Your task to perform on an android device: check data usage Image 0: 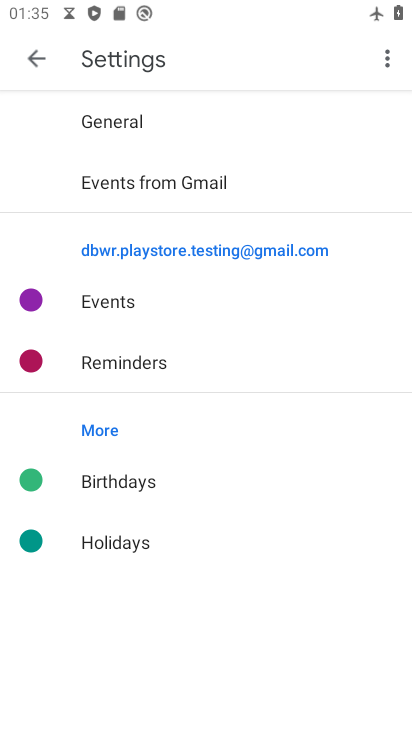
Step 0: press home button
Your task to perform on an android device: check data usage Image 1: 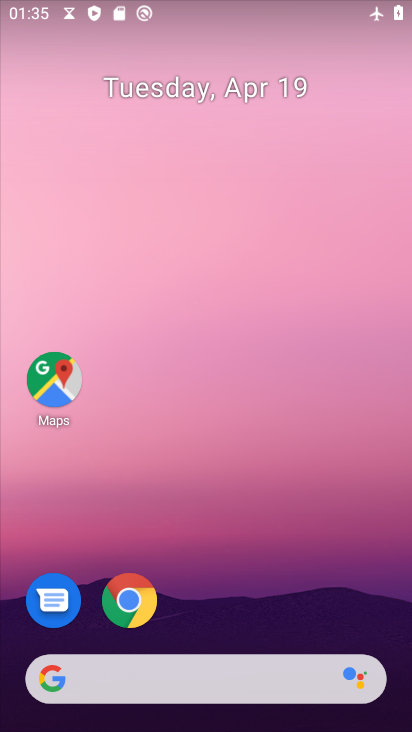
Step 1: drag from (202, 645) to (322, 74)
Your task to perform on an android device: check data usage Image 2: 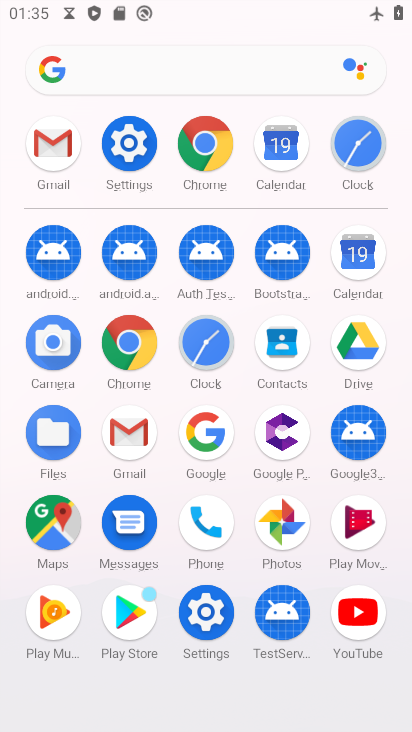
Step 2: click (122, 163)
Your task to perform on an android device: check data usage Image 3: 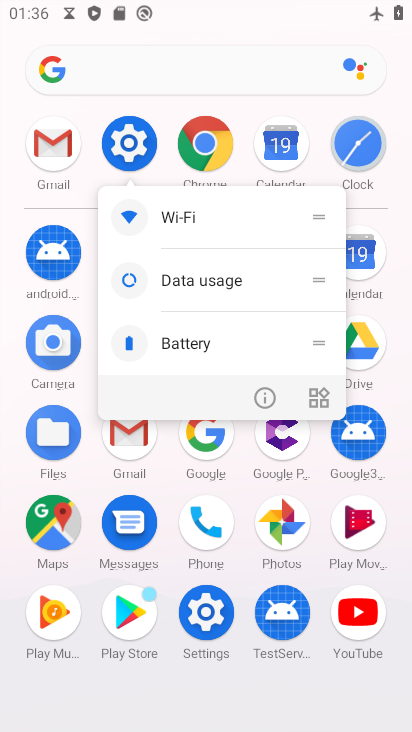
Step 3: click (130, 150)
Your task to perform on an android device: check data usage Image 4: 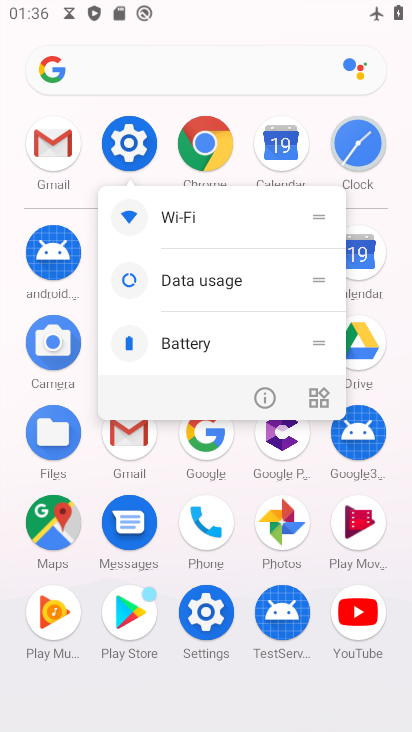
Step 4: click (130, 150)
Your task to perform on an android device: check data usage Image 5: 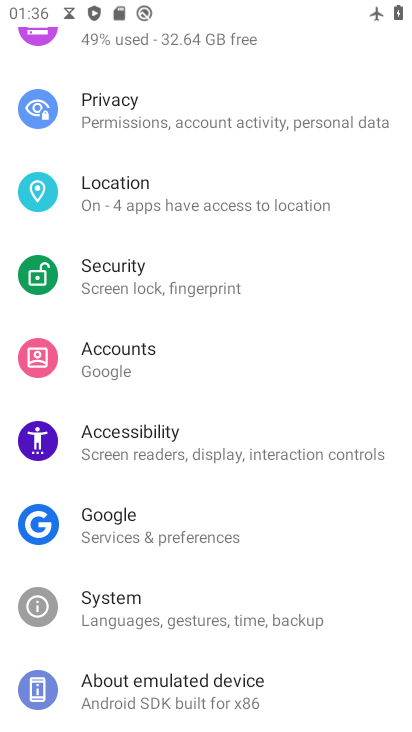
Step 5: drag from (136, 152) to (136, 299)
Your task to perform on an android device: check data usage Image 6: 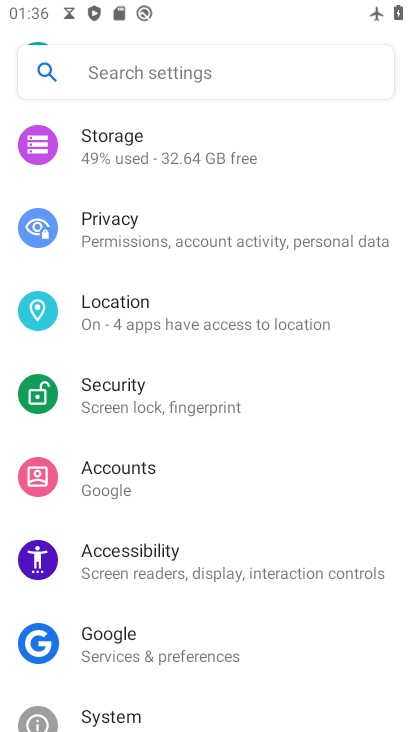
Step 6: drag from (166, 171) to (181, 379)
Your task to perform on an android device: check data usage Image 7: 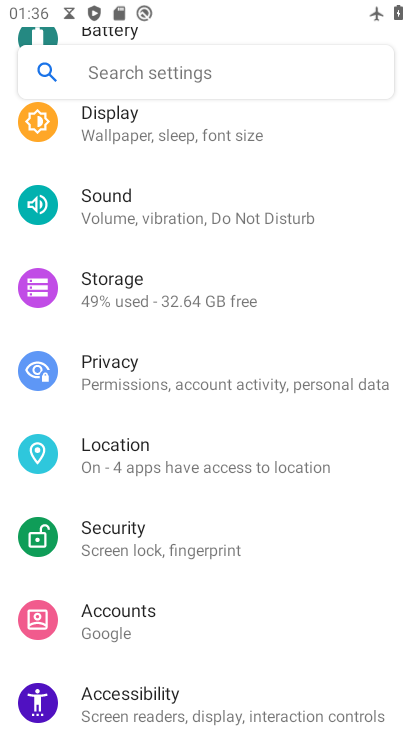
Step 7: drag from (138, 171) to (151, 433)
Your task to perform on an android device: check data usage Image 8: 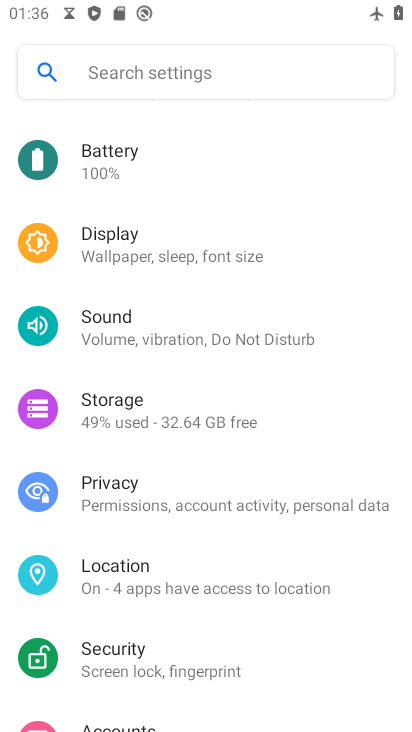
Step 8: drag from (178, 213) to (166, 428)
Your task to perform on an android device: check data usage Image 9: 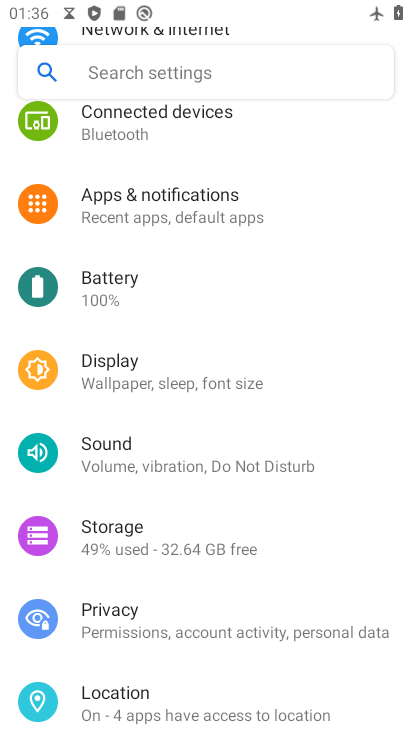
Step 9: drag from (174, 179) to (143, 526)
Your task to perform on an android device: check data usage Image 10: 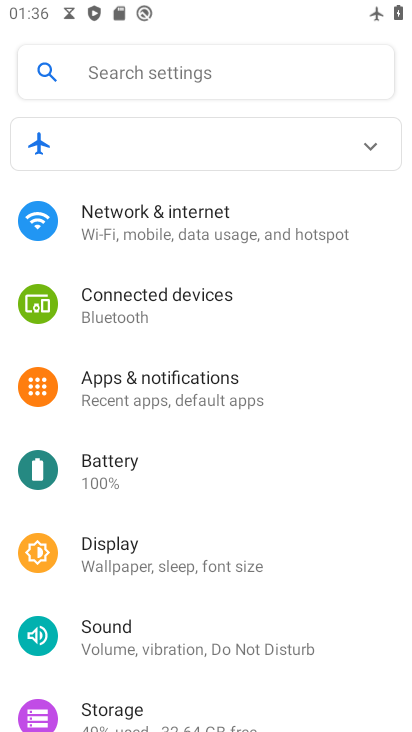
Step 10: click (126, 228)
Your task to perform on an android device: check data usage Image 11: 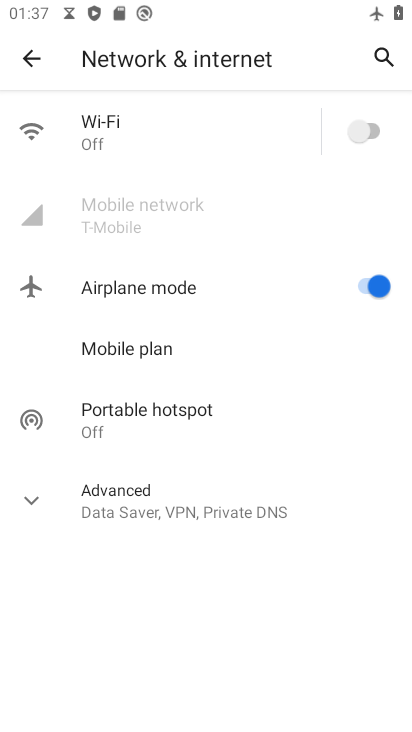
Step 11: task complete